Your task to perform on an android device: Open Android settings Image 0: 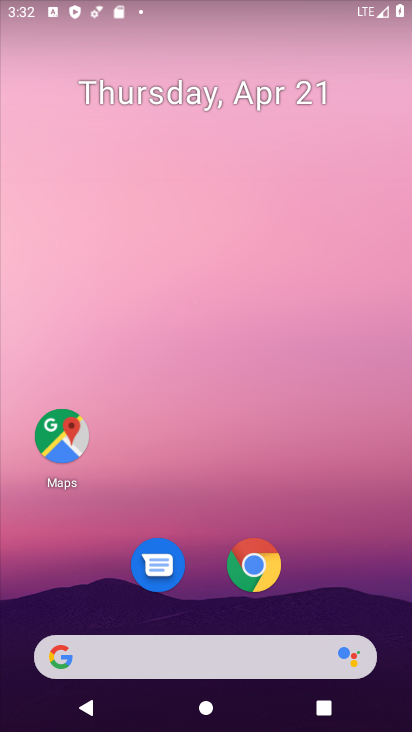
Step 0: drag from (351, 560) to (352, 98)
Your task to perform on an android device: Open Android settings Image 1: 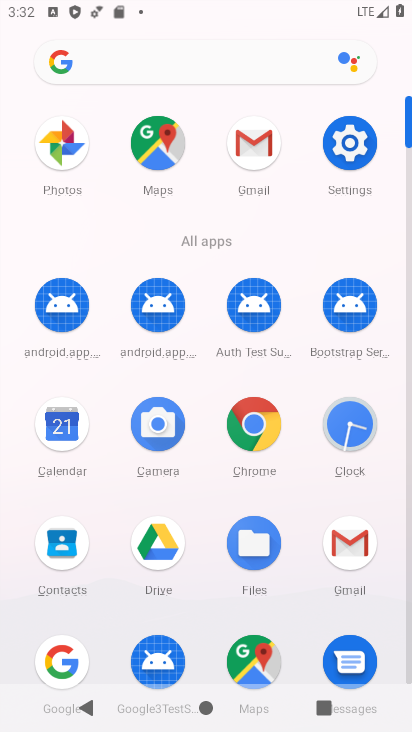
Step 1: click (353, 143)
Your task to perform on an android device: Open Android settings Image 2: 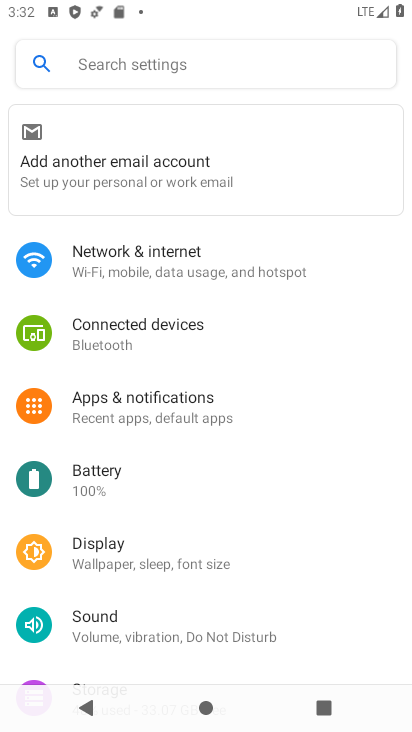
Step 2: task complete